Your task to perform on an android device: Open notification settings Image 0: 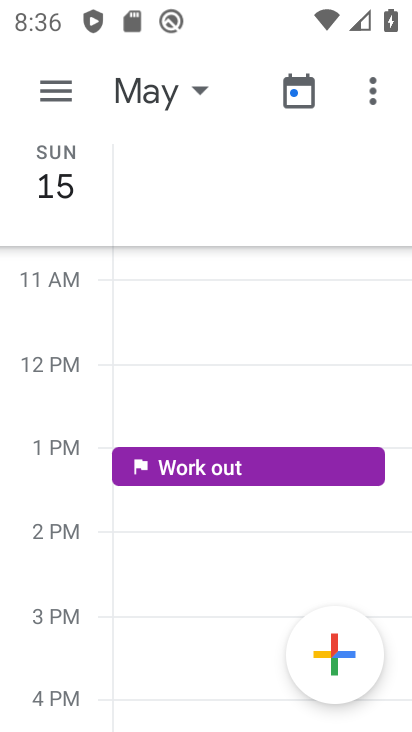
Step 0: press home button
Your task to perform on an android device: Open notification settings Image 1: 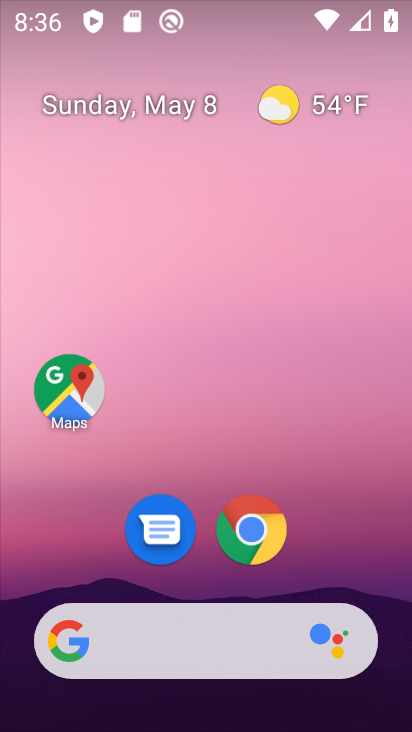
Step 1: drag from (331, 557) to (386, 186)
Your task to perform on an android device: Open notification settings Image 2: 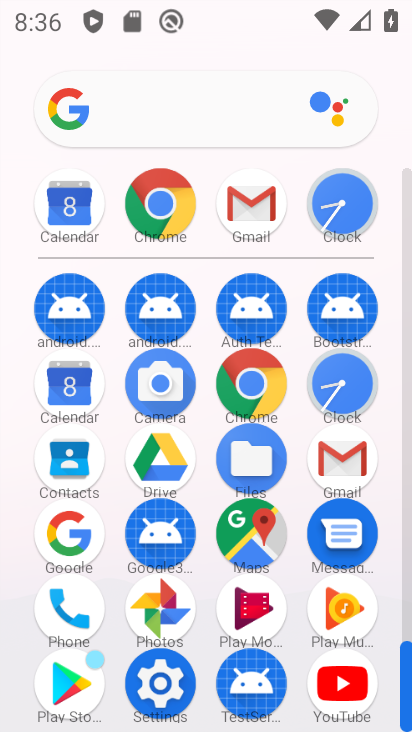
Step 2: click (175, 690)
Your task to perform on an android device: Open notification settings Image 3: 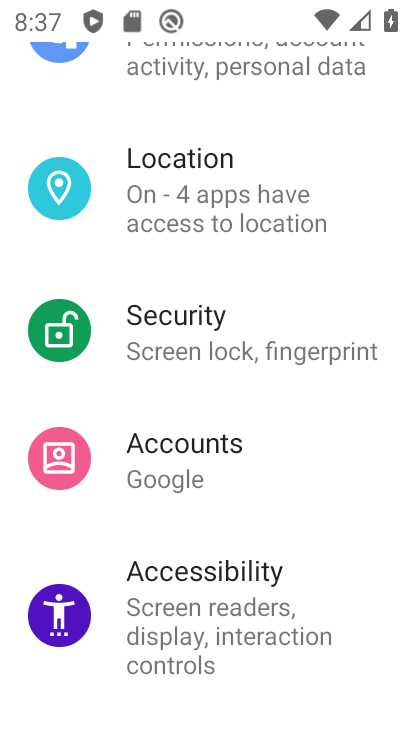
Step 3: drag from (281, 260) to (278, 622)
Your task to perform on an android device: Open notification settings Image 4: 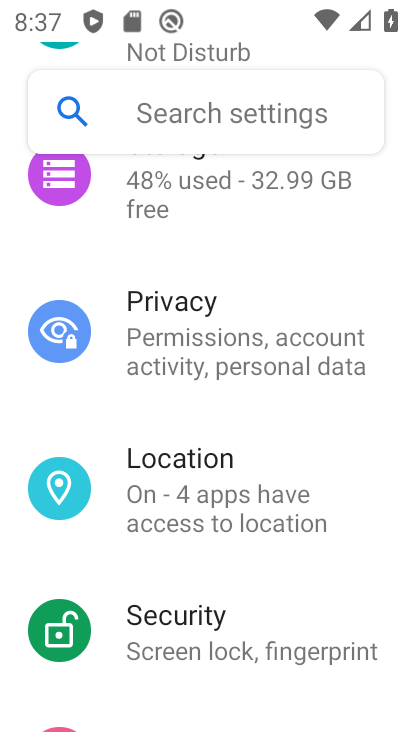
Step 4: drag from (244, 275) to (246, 680)
Your task to perform on an android device: Open notification settings Image 5: 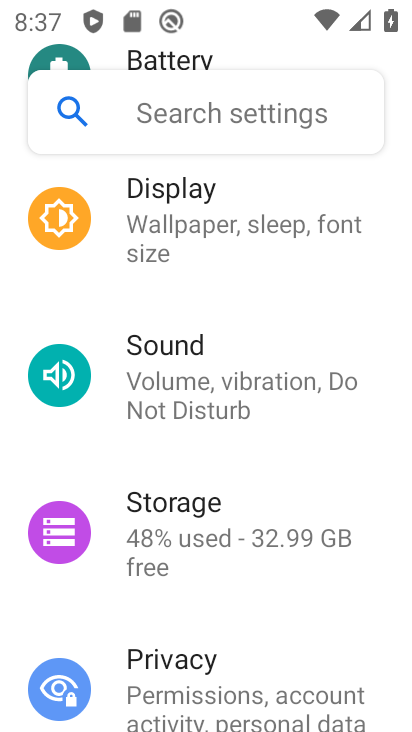
Step 5: drag from (223, 282) to (245, 628)
Your task to perform on an android device: Open notification settings Image 6: 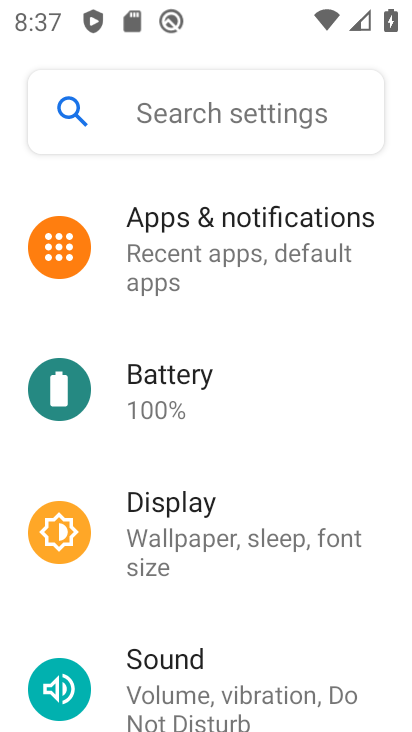
Step 6: click (220, 206)
Your task to perform on an android device: Open notification settings Image 7: 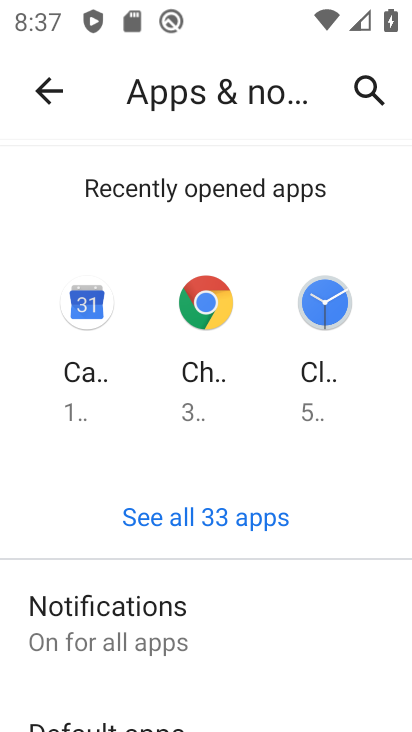
Step 7: click (154, 612)
Your task to perform on an android device: Open notification settings Image 8: 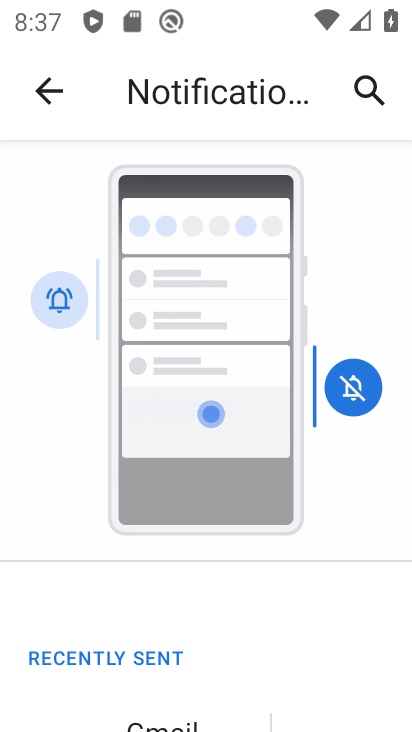
Step 8: task complete